Your task to perform on an android device: Open the calendar app, open the side menu, and click the "Day" option Image 0: 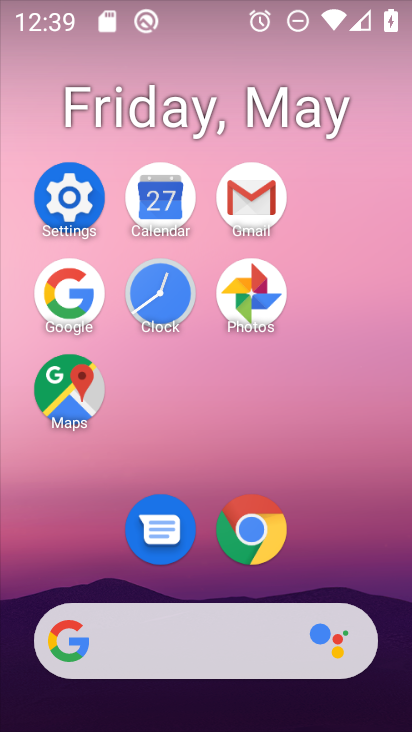
Step 0: click (175, 203)
Your task to perform on an android device: Open the calendar app, open the side menu, and click the "Day" option Image 1: 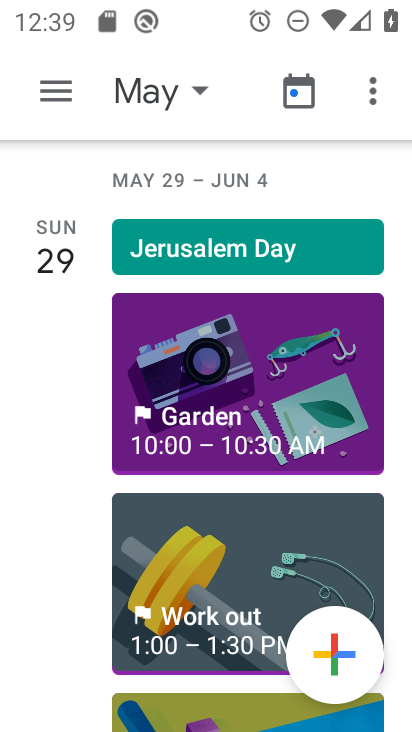
Step 1: click (54, 79)
Your task to perform on an android device: Open the calendar app, open the side menu, and click the "Day" option Image 2: 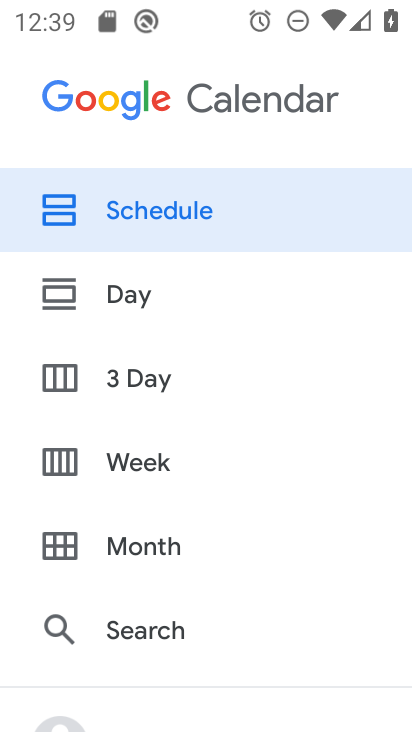
Step 2: click (150, 296)
Your task to perform on an android device: Open the calendar app, open the side menu, and click the "Day" option Image 3: 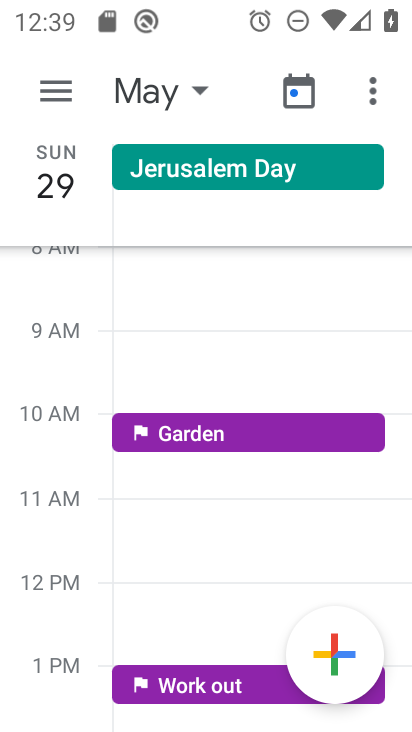
Step 3: task complete